Your task to perform on an android device: Check the weather Image 0: 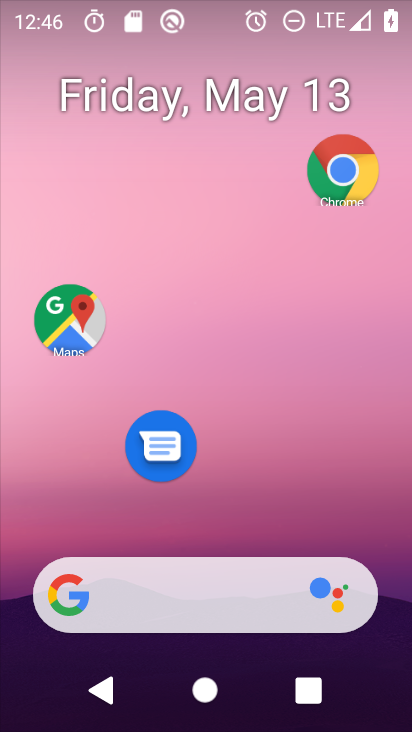
Step 0: drag from (173, 586) to (177, 43)
Your task to perform on an android device: Check the weather Image 1: 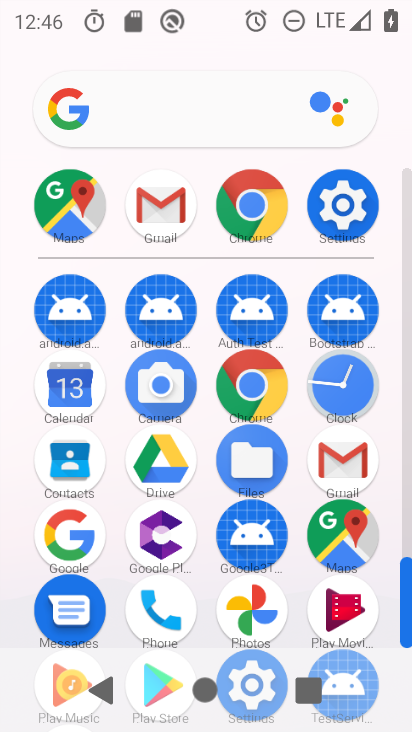
Step 1: click (248, 398)
Your task to perform on an android device: Check the weather Image 2: 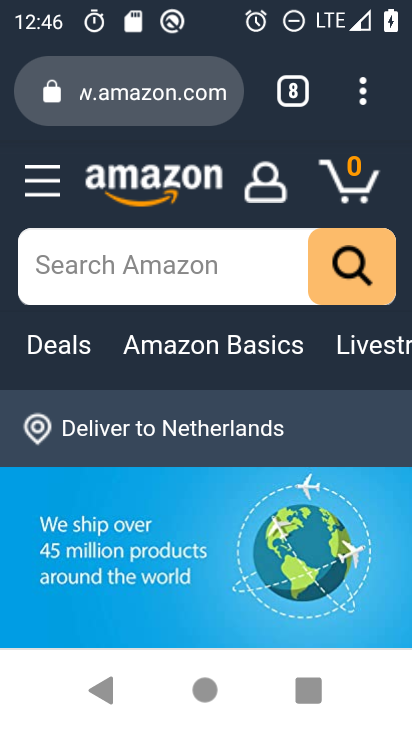
Step 2: click (125, 91)
Your task to perform on an android device: Check the weather Image 3: 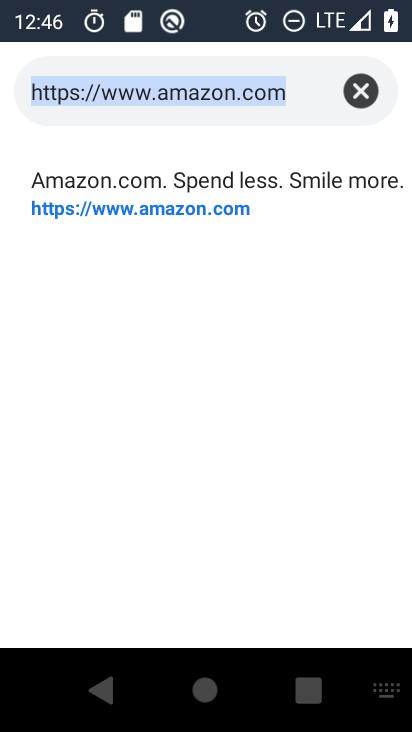
Step 3: click (358, 86)
Your task to perform on an android device: Check the weather Image 4: 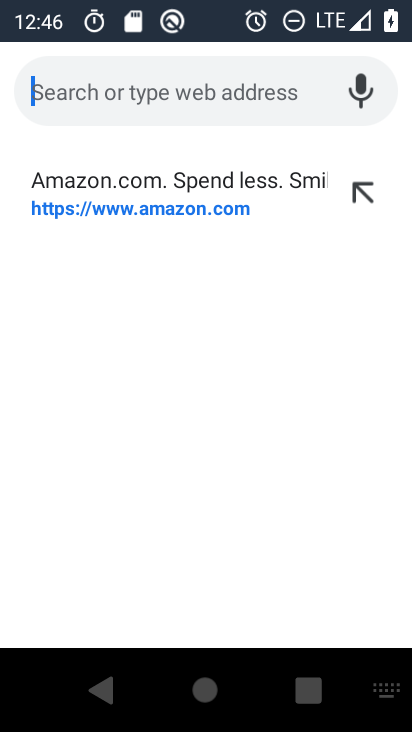
Step 4: type "check the weather"
Your task to perform on an android device: Check the weather Image 5: 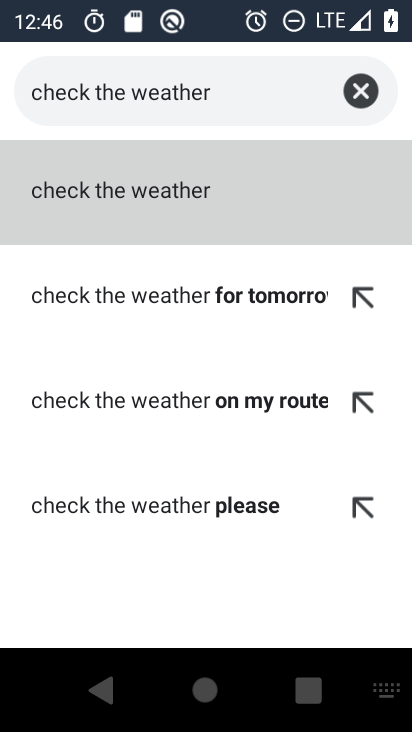
Step 5: click (158, 173)
Your task to perform on an android device: Check the weather Image 6: 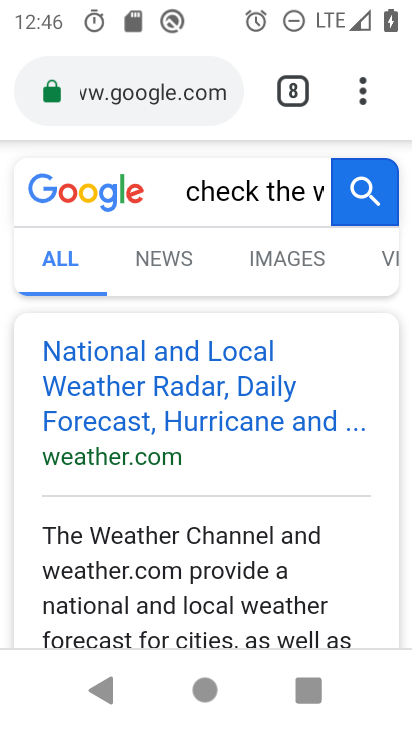
Step 6: task complete